Your task to perform on an android device: Open calendar and show me the fourth week of next month Image 0: 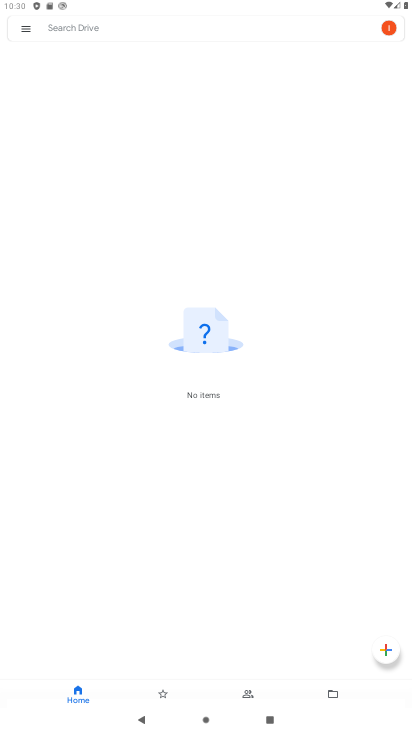
Step 0: press home button
Your task to perform on an android device: Open calendar and show me the fourth week of next month Image 1: 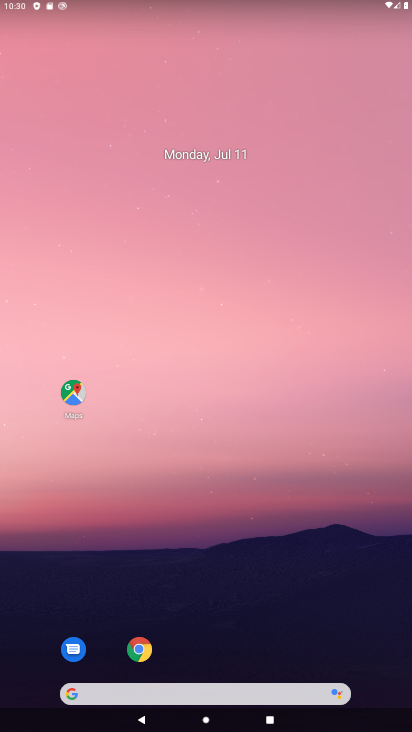
Step 1: drag from (214, 686) to (263, 118)
Your task to perform on an android device: Open calendar and show me the fourth week of next month Image 2: 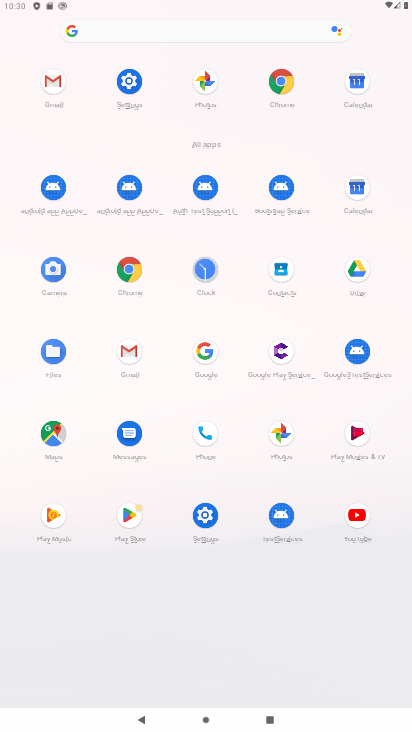
Step 2: click (359, 188)
Your task to perform on an android device: Open calendar and show me the fourth week of next month Image 3: 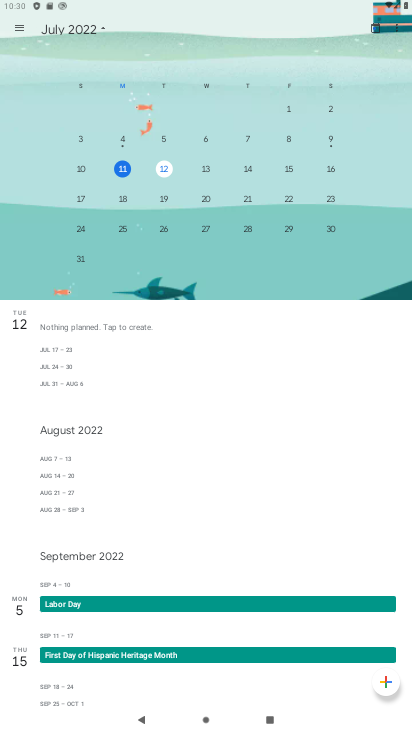
Step 3: click (374, 29)
Your task to perform on an android device: Open calendar and show me the fourth week of next month Image 4: 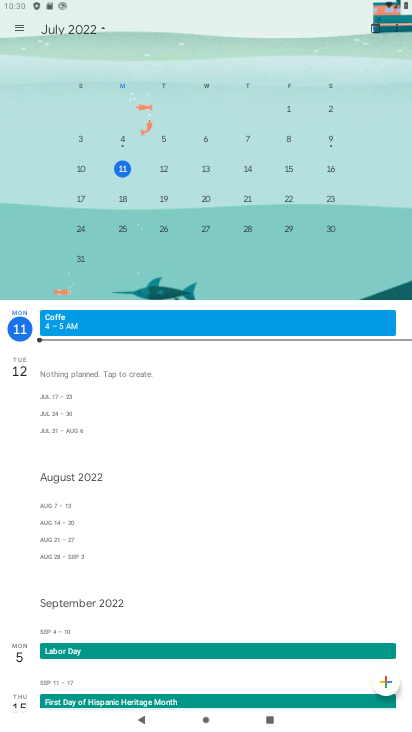
Step 4: drag from (379, 167) to (5, 223)
Your task to perform on an android device: Open calendar and show me the fourth week of next month Image 5: 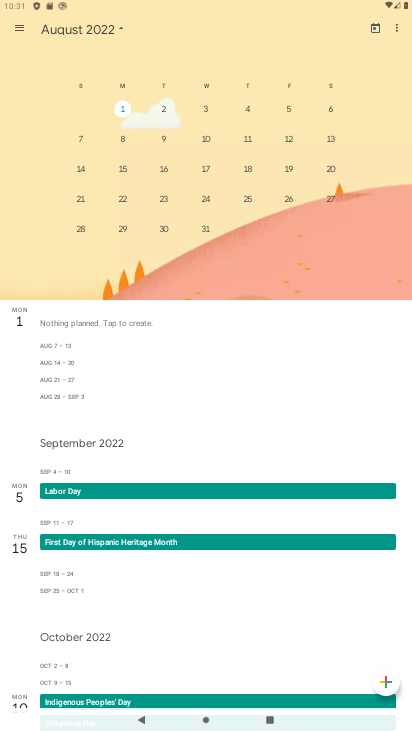
Step 5: click (122, 195)
Your task to perform on an android device: Open calendar and show me the fourth week of next month Image 6: 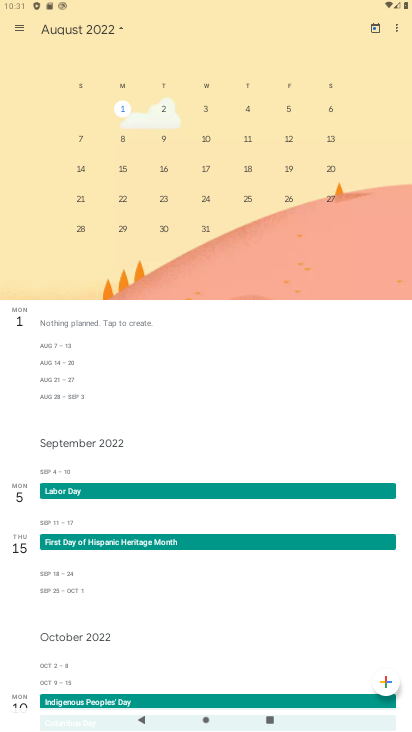
Step 6: click (122, 195)
Your task to perform on an android device: Open calendar and show me the fourth week of next month Image 7: 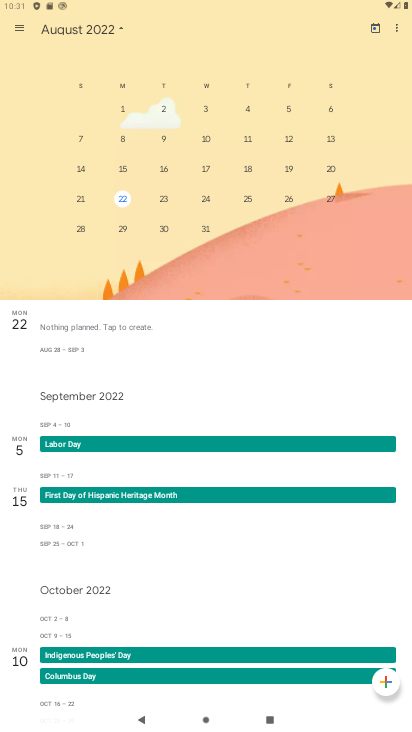
Step 7: click (21, 27)
Your task to perform on an android device: Open calendar and show me the fourth week of next month Image 8: 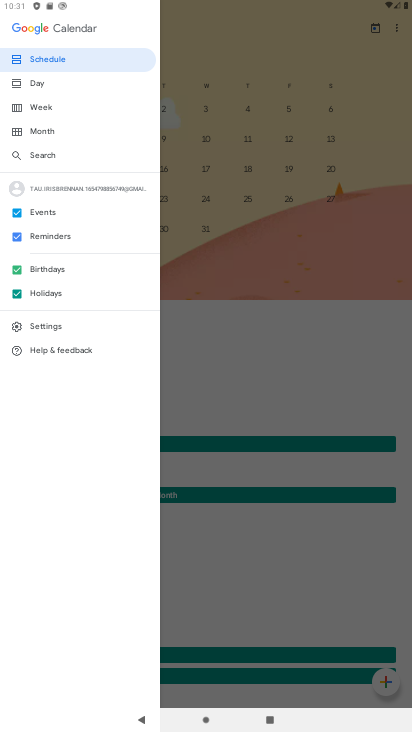
Step 8: click (54, 104)
Your task to perform on an android device: Open calendar and show me the fourth week of next month Image 9: 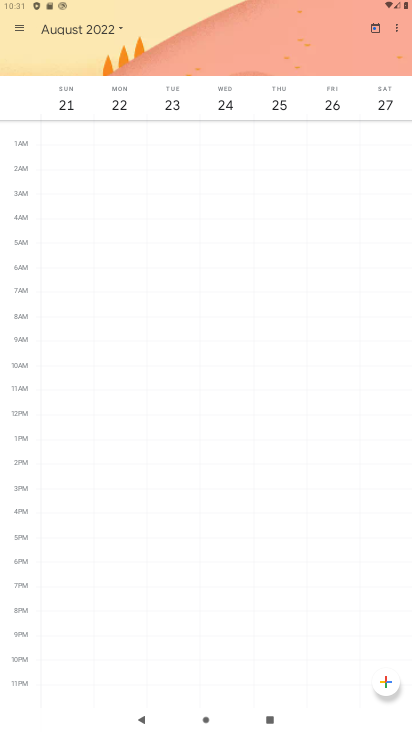
Step 9: task complete